Your task to perform on an android device: Open battery settings Image 0: 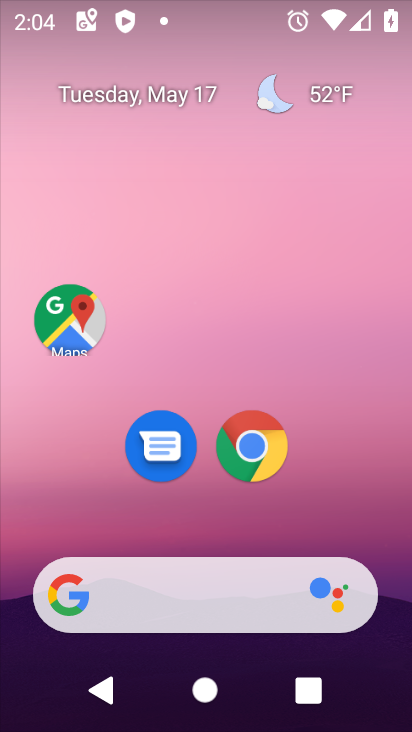
Step 0: drag from (243, 280) to (279, 195)
Your task to perform on an android device: Open battery settings Image 1: 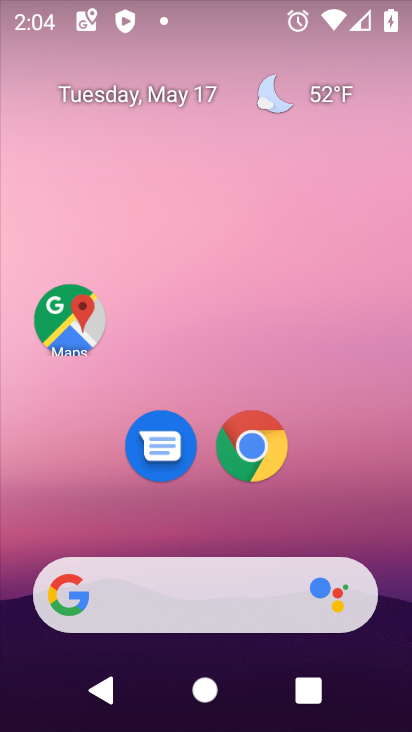
Step 1: drag from (229, 433) to (320, 187)
Your task to perform on an android device: Open battery settings Image 2: 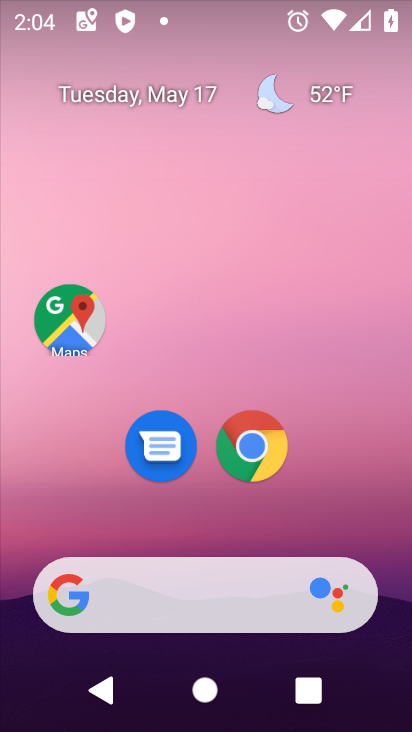
Step 2: drag from (181, 525) to (281, 234)
Your task to perform on an android device: Open battery settings Image 3: 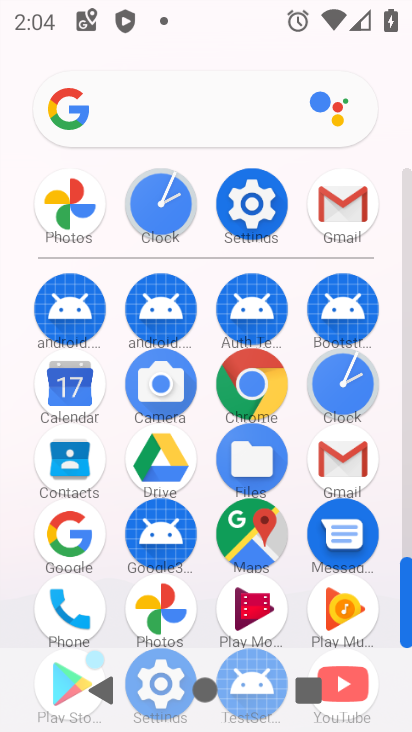
Step 3: click (249, 217)
Your task to perform on an android device: Open battery settings Image 4: 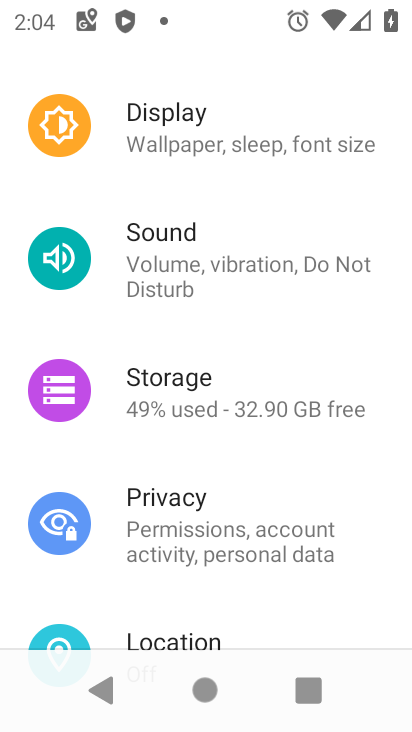
Step 4: drag from (221, 228) to (243, 538)
Your task to perform on an android device: Open battery settings Image 5: 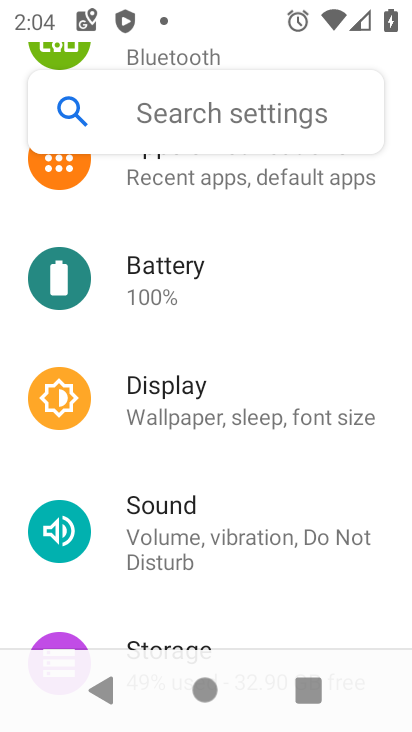
Step 5: click (187, 294)
Your task to perform on an android device: Open battery settings Image 6: 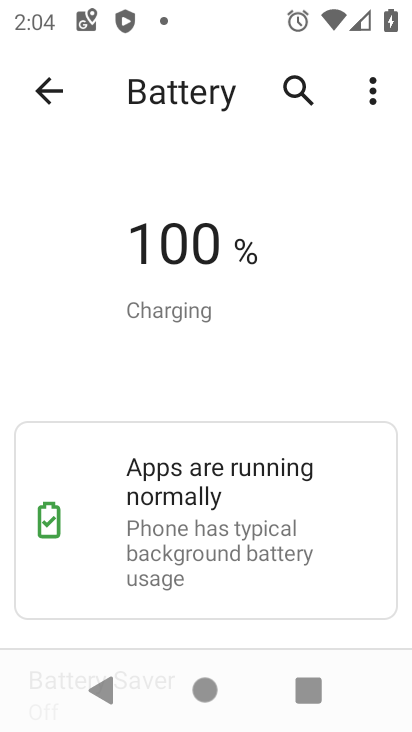
Step 6: task complete